Your task to perform on an android device: open wifi settings Image 0: 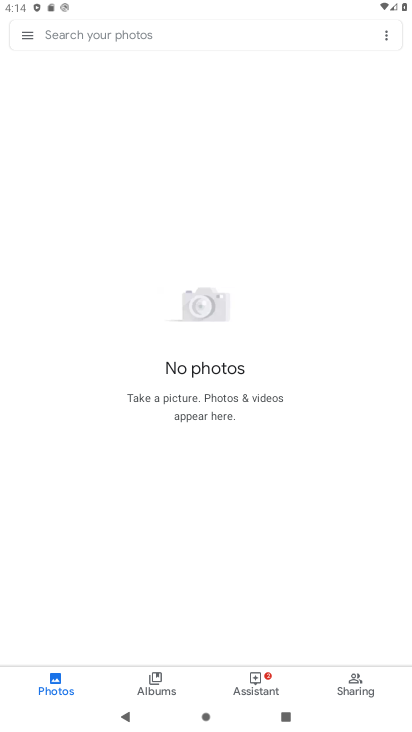
Step 0: press home button
Your task to perform on an android device: open wifi settings Image 1: 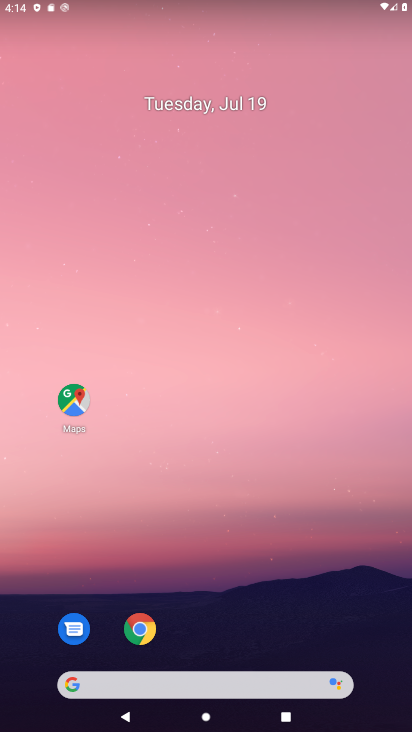
Step 1: drag from (198, 672) to (234, 266)
Your task to perform on an android device: open wifi settings Image 2: 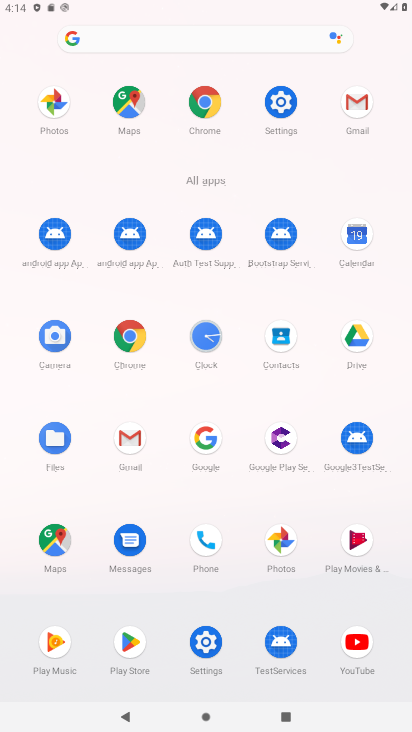
Step 2: click (287, 92)
Your task to perform on an android device: open wifi settings Image 3: 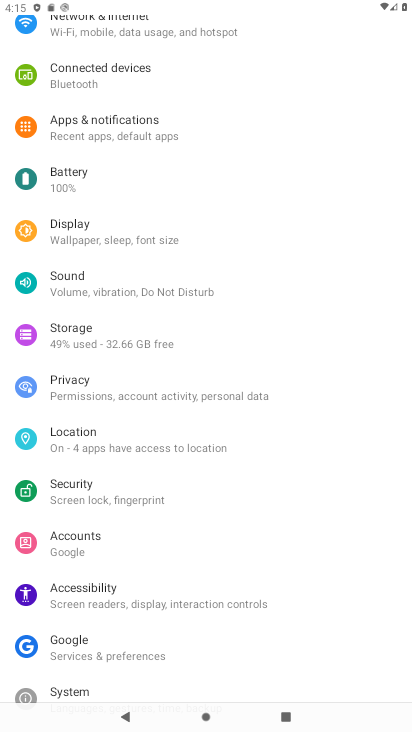
Step 3: drag from (93, 56) to (114, 430)
Your task to perform on an android device: open wifi settings Image 4: 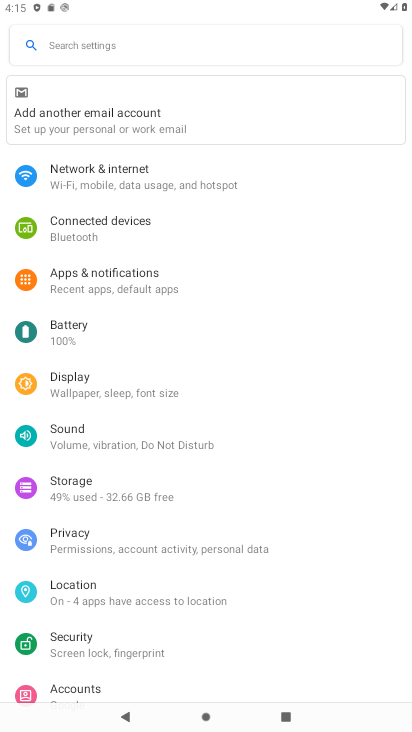
Step 4: click (95, 169)
Your task to perform on an android device: open wifi settings Image 5: 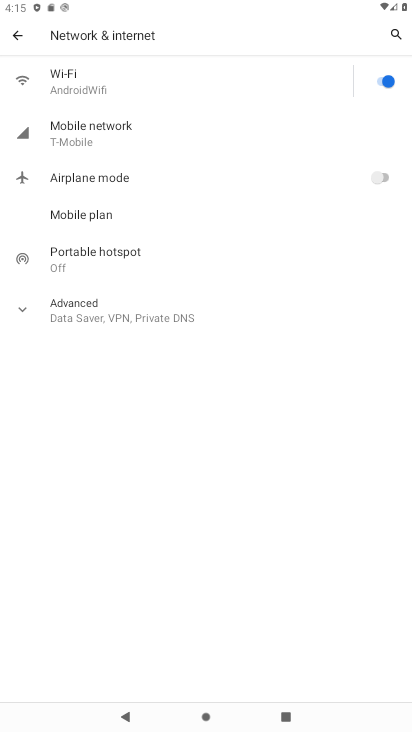
Step 5: click (64, 78)
Your task to perform on an android device: open wifi settings Image 6: 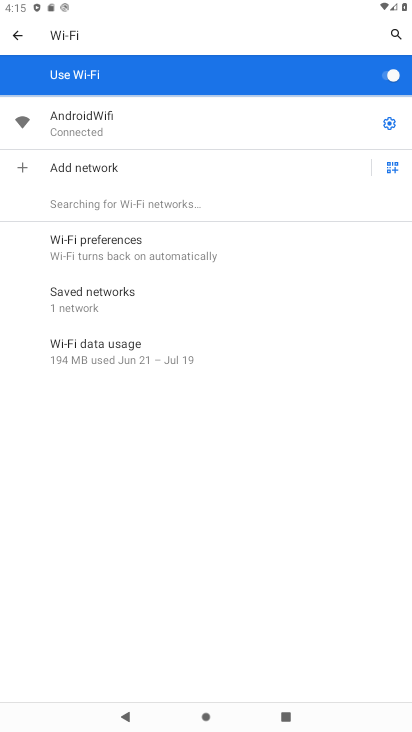
Step 6: click (387, 125)
Your task to perform on an android device: open wifi settings Image 7: 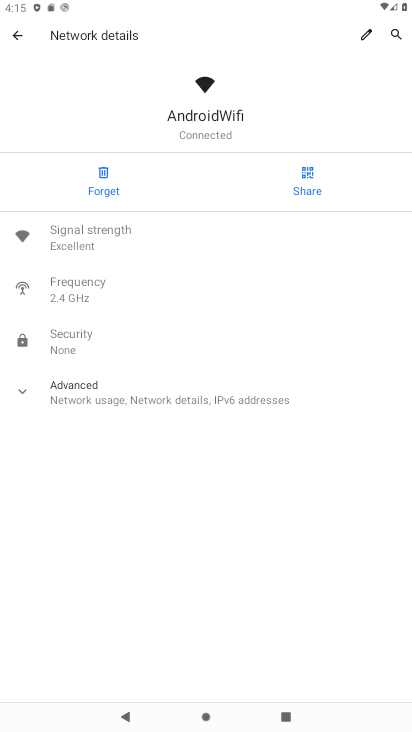
Step 7: click (105, 393)
Your task to perform on an android device: open wifi settings Image 8: 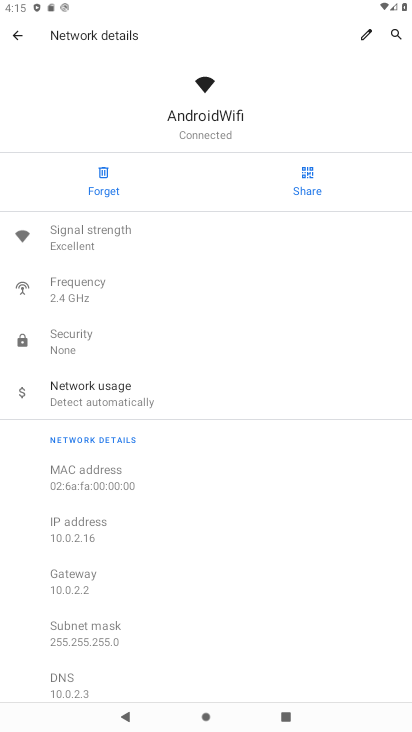
Step 8: task complete